Your task to perform on an android device: turn on notifications settings in the gmail app Image 0: 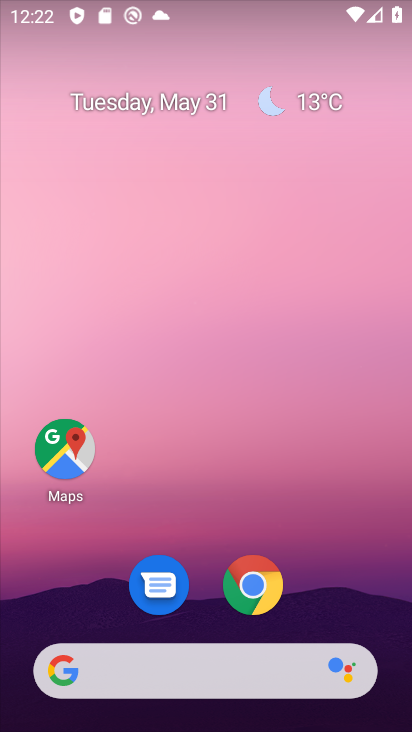
Step 0: click (221, 491)
Your task to perform on an android device: turn on notifications settings in the gmail app Image 1: 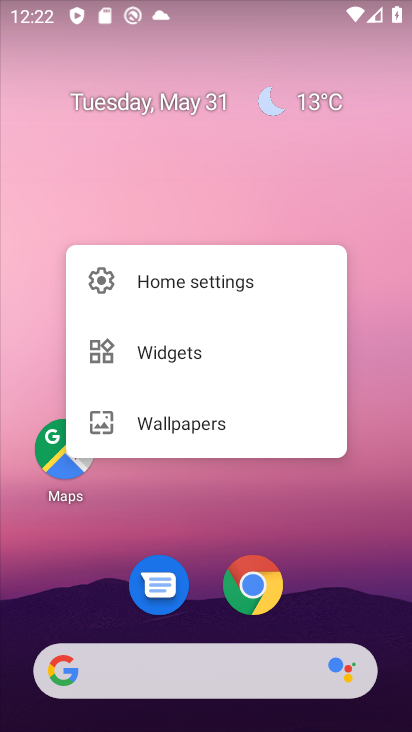
Step 1: drag from (242, 516) to (261, 320)
Your task to perform on an android device: turn on notifications settings in the gmail app Image 2: 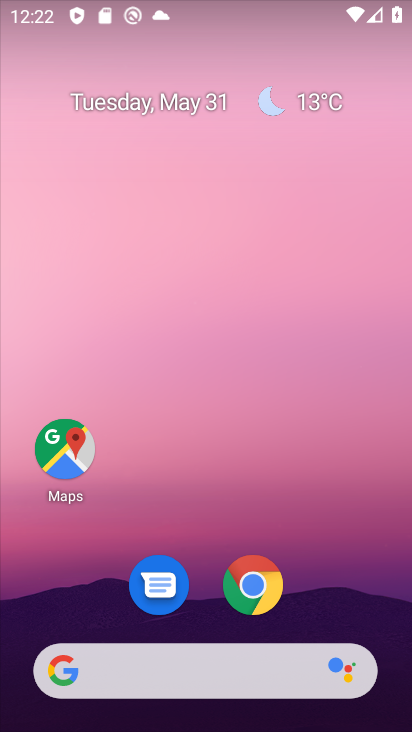
Step 2: drag from (211, 464) to (257, 28)
Your task to perform on an android device: turn on notifications settings in the gmail app Image 3: 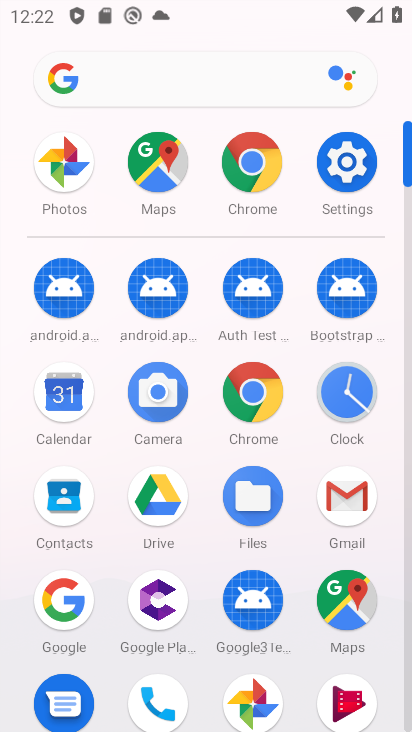
Step 3: click (346, 494)
Your task to perform on an android device: turn on notifications settings in the gmail app Image 4: 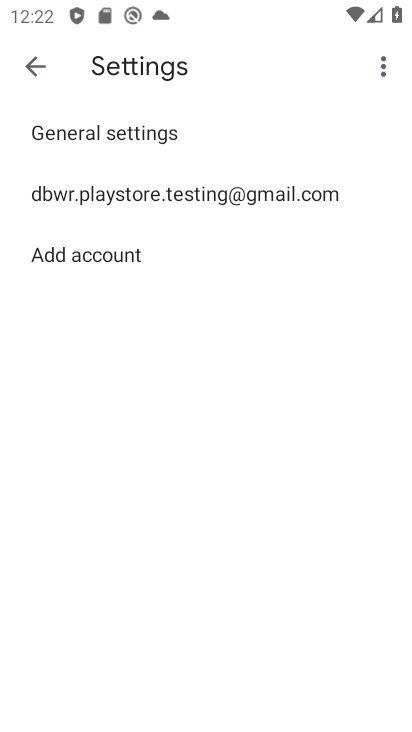
Step 4: click (113, 190)
Your task to perform on an android device: turn on notifications settings in the gmail app Image 5: 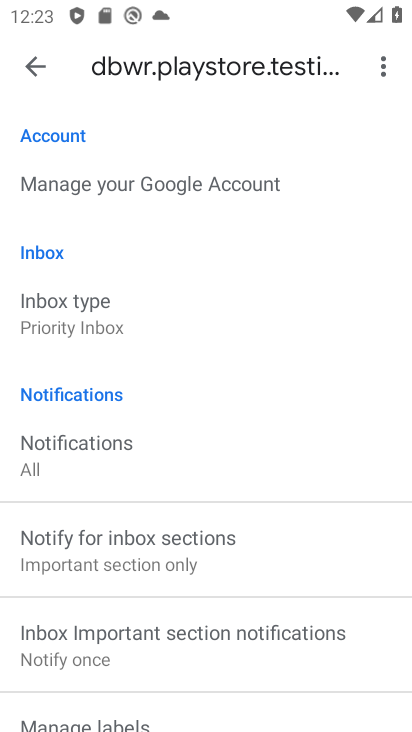
Step 5: drag from (227, 459) to (240, 135)
Your task to perform on an android device: turn on notifications settings in the gmail app Image 6: 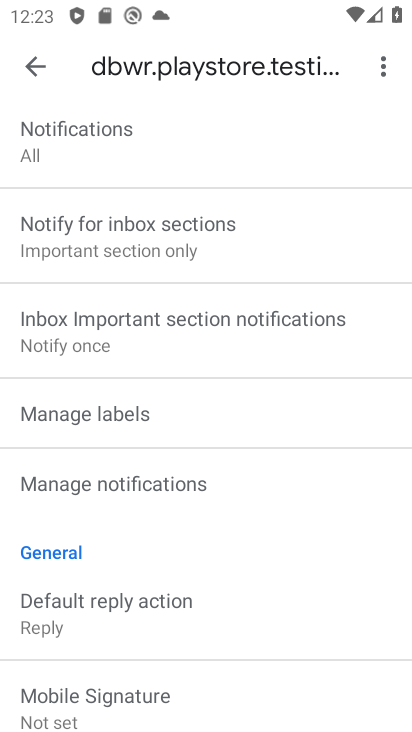
Step 6: click (261, 494)
Your task to perform on an android device: turn on notifications settings in the gmail app Image 7: 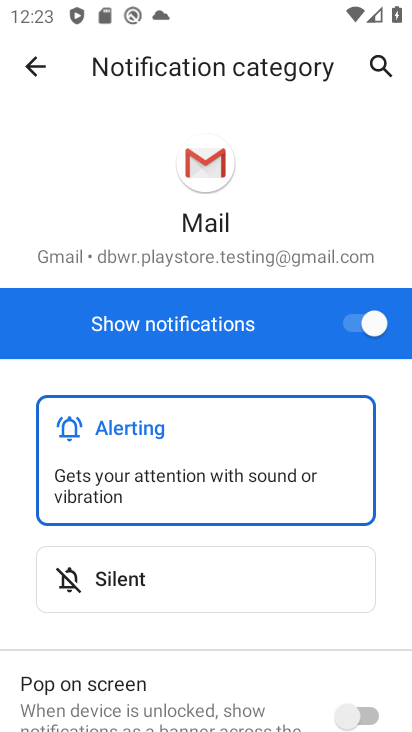
Step 7: task complete